Your task to perform on an android device: allow notifications from all sites in the chrome app Image 0: 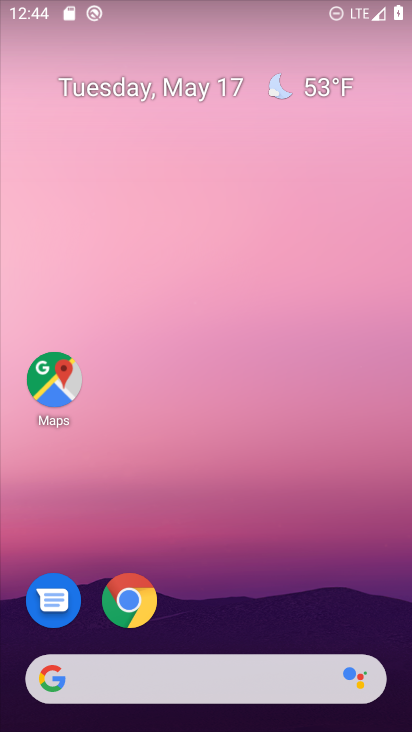
Step 0: drag from (210, 238) to (197, 173)
Your task to perform on an android device: allow notifications from all sites in the chrome app Image 1: 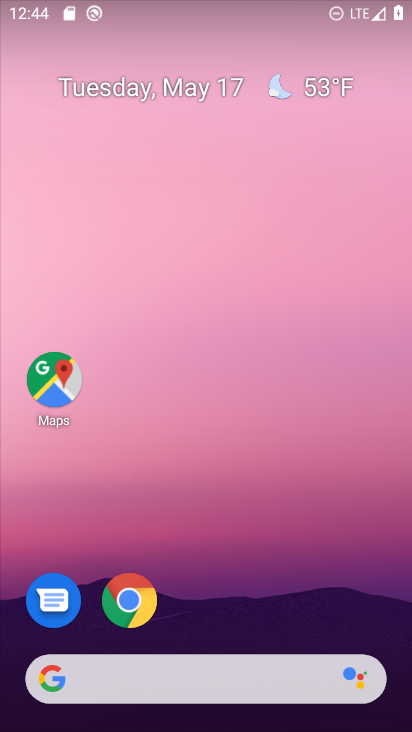
Step 1: drag from (184, 204) to (122, 19)
Your task to perform on an android device: allow notifications from all sites in the chrome app Image 2: 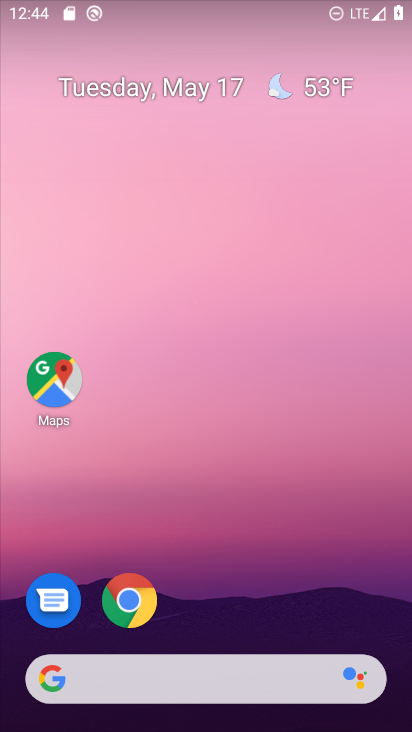
Step 2: drag from (189, 592) to (126, 6)
Your task to perform on an android device: allow notifications from all sites in the chrome app Image 3: 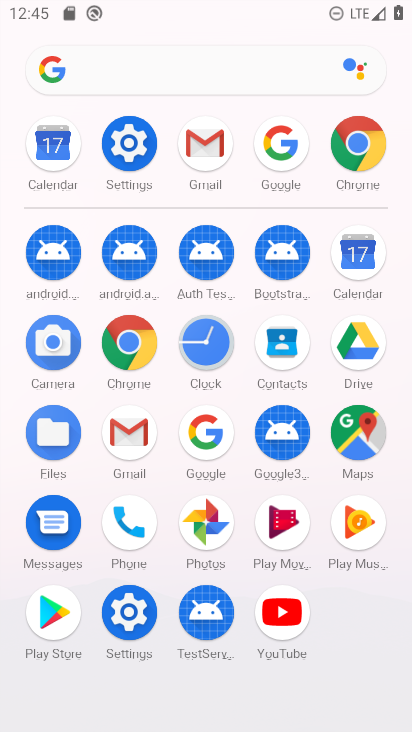
Step 3: click (126, 152)
Your task to perform on an android device: allow notifications from all sites in the chrome app Image 4: 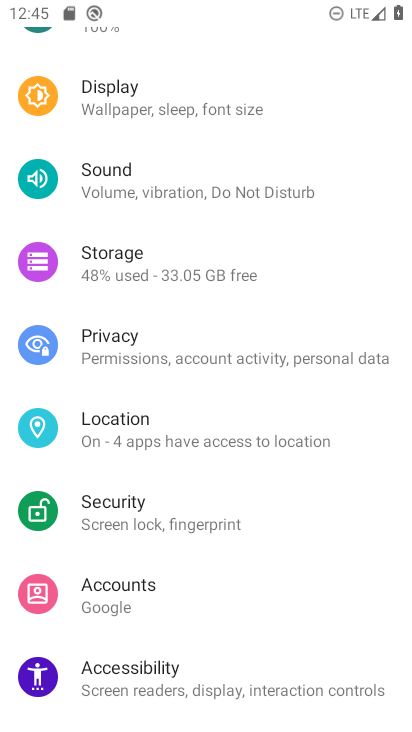
Step 4: press back button
Your task to perform on an android device: allow notifications from all sites in the chrome app Image 5: 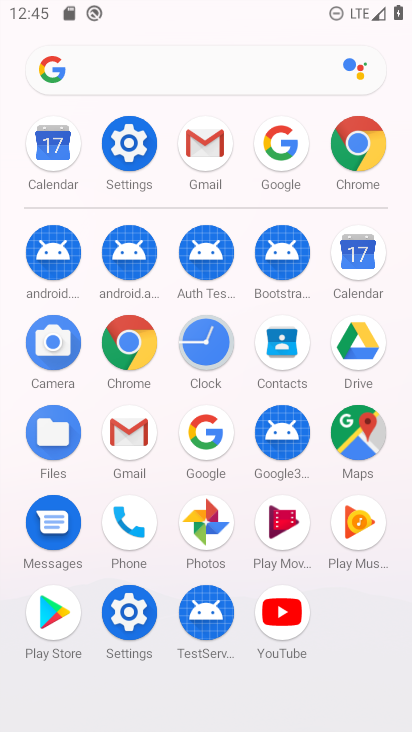
Step 5: click (347, 167)
Your task to perform on an android device: allow notifications from all sites in the chrome app Image 6: 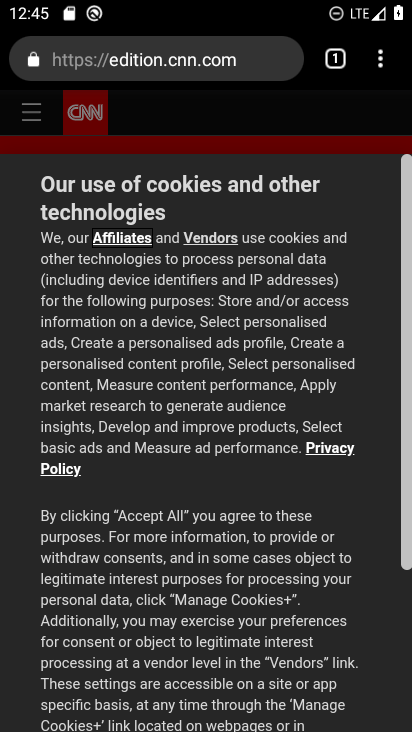
Step 6: click (379, 56)
Your task to perform on an android device: allow notifications from all sites in the chrome app Image 7: 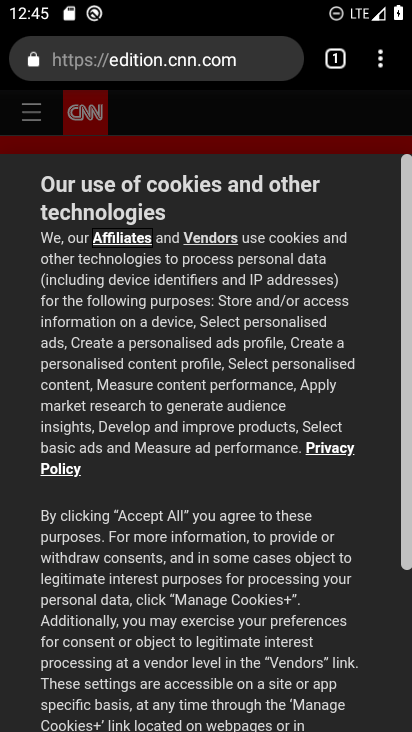
Step 7: click (383, 74)
Your task to perform on an android device: allow notifications from all sites in the chrome app Image 8: 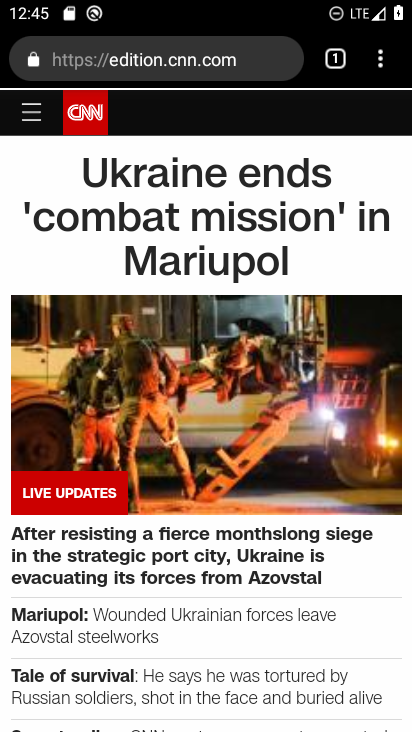
Step 8: click (380, 64)
Your task to perform on an android device: allow notifications from all sites in the chrome app Image 9: 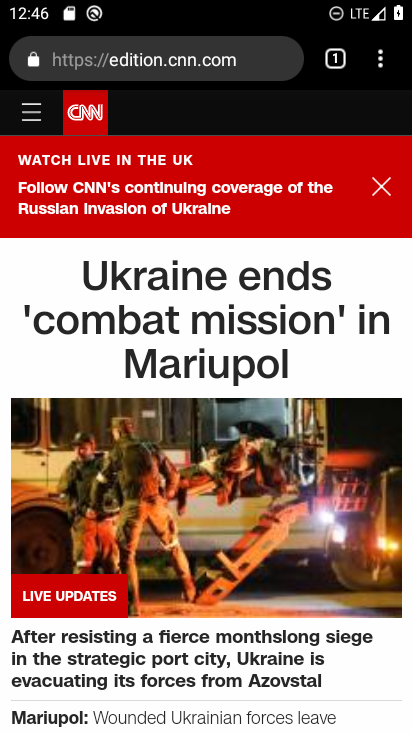
Step 9: click (382, 61)
Your task to perform on an android device: allow notifications from all sites in the chrome app Image 10: 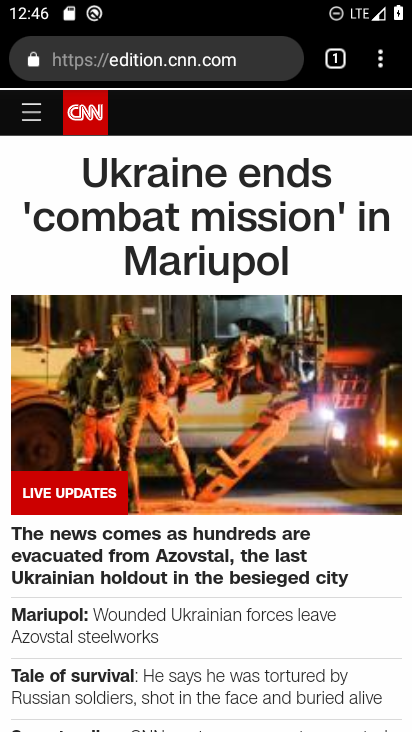
Step 10: click (378, 65)
Your task to perform on an android device: allow notifications from all sites in the chrome app Image 11: 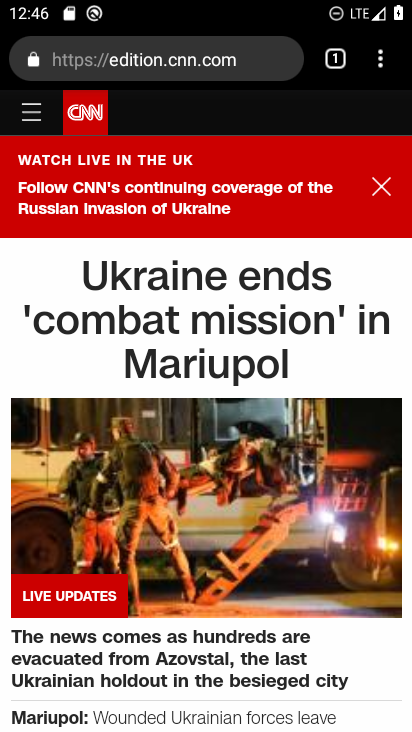
Step 11: click (381, 71)
Your task to perform on an android device: allow notifications from all sites in the chrome app Image 12: 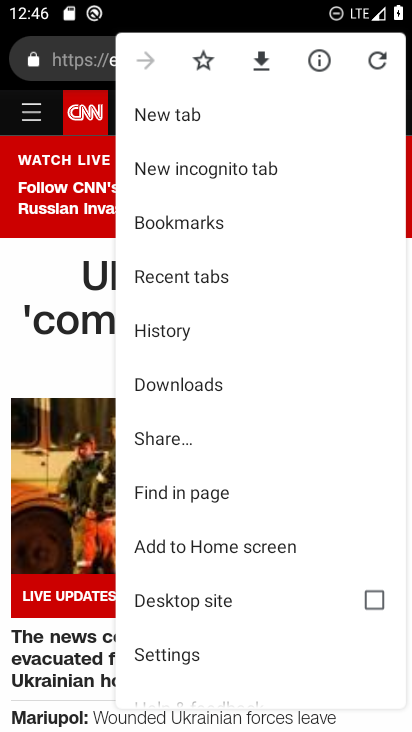
Step 12: click (207, 652)
Your task to perform on an android device: allow notifications from all sites in the chrome app Image 13: 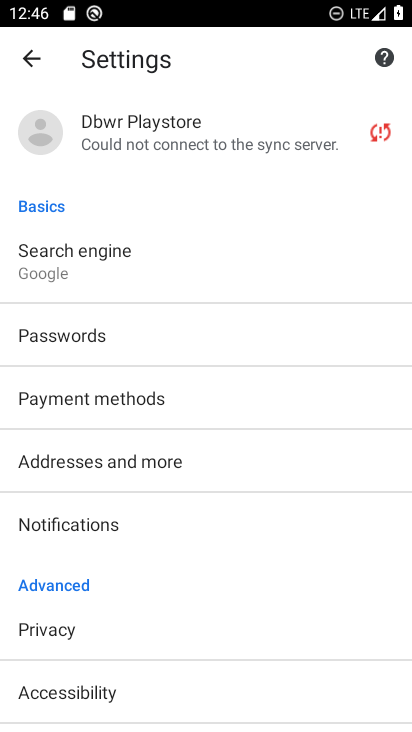
Step 13: click (95, 531)
Your task to perform on an android device: allow notifications from all sites in the chrome app Image 14: 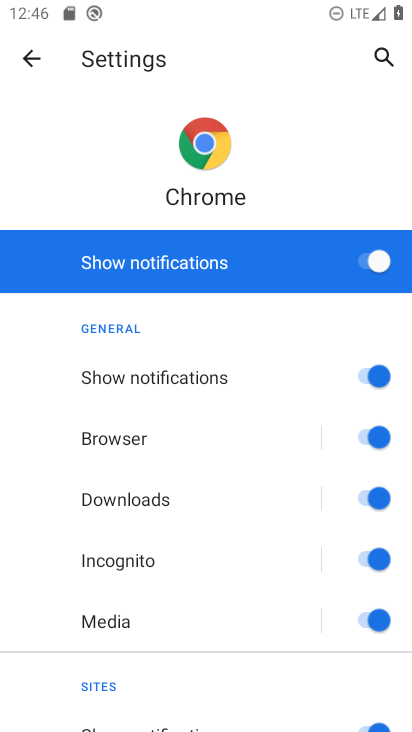
Step 14: task complete